Your task to perform on an android device: Open Youtube and go to the subscriptions tab Image 0: 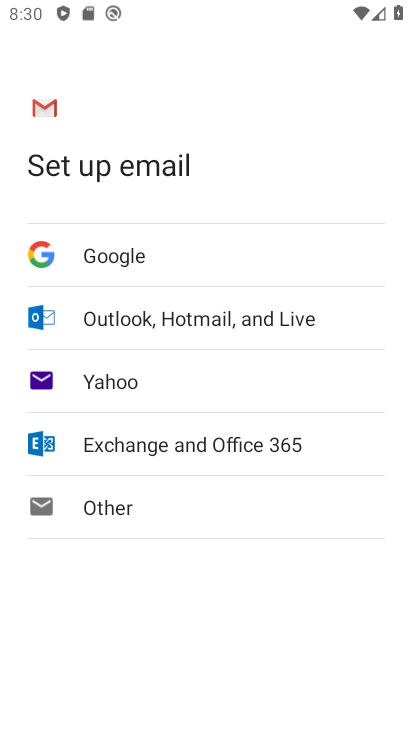
Step 0: press home button
Your task to perform on an android device: Open Youtube and go to the subscriptions tab Image 1: 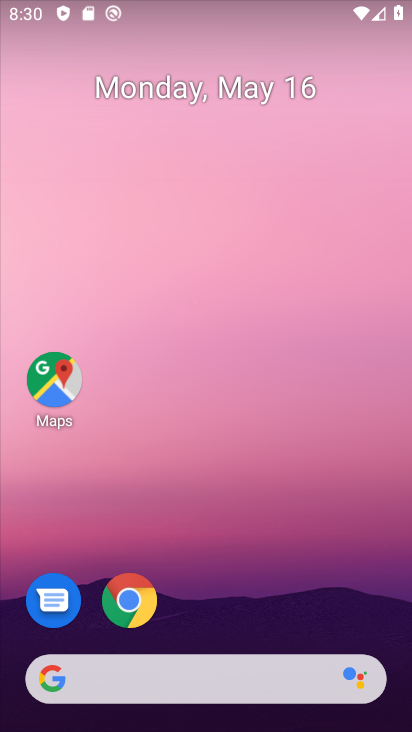
Step 1: drag from (396, 655) to (311, 88)
Your task to perform on an android device: Open Youtube and go to the subscriptions tab Image 2: 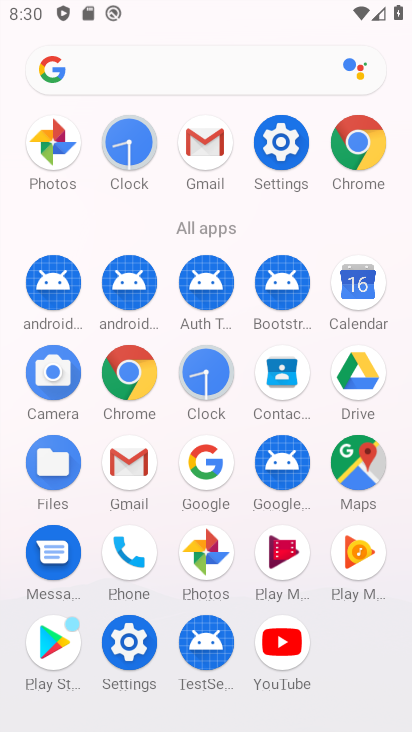
Step 2: click (278, 640)
Your task to perform on an android device: Open Youtube and go to the subscriptions tab Image 3: 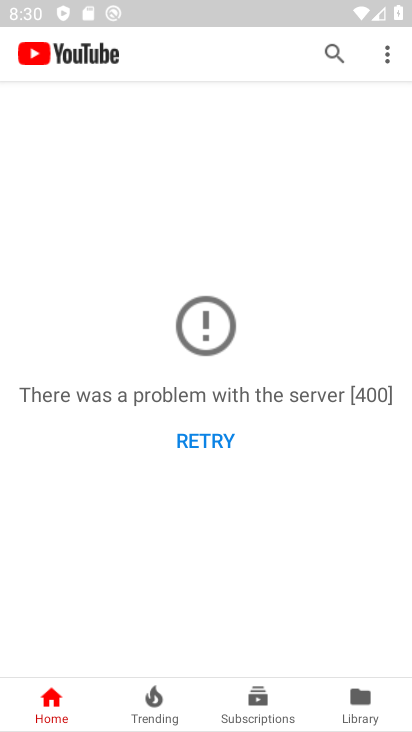
Step 3: click (263, 698)
Your task to perform on an android device: Open Youtube and go to the subscriptions tab Image 4: 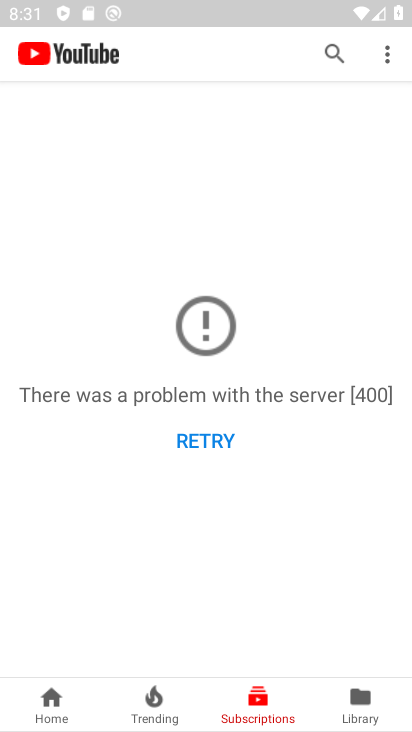
Step 4: task complete